Your task to perform on an android device: turn off location history Image 0: 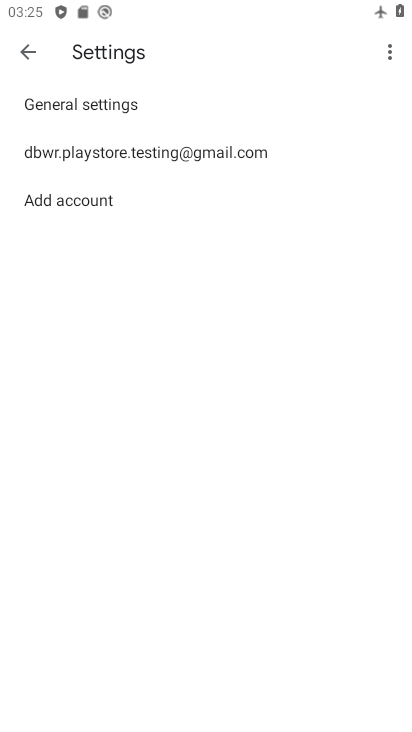
Step 0: click (183, 148)
Your task to perform on an android device: turn off location history Image 1: 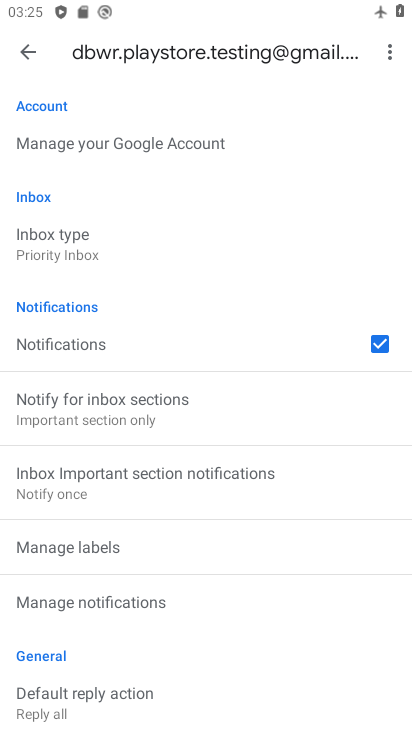
Step 1: press home button
Your task to perform on an android device: turn off location history Image 2: 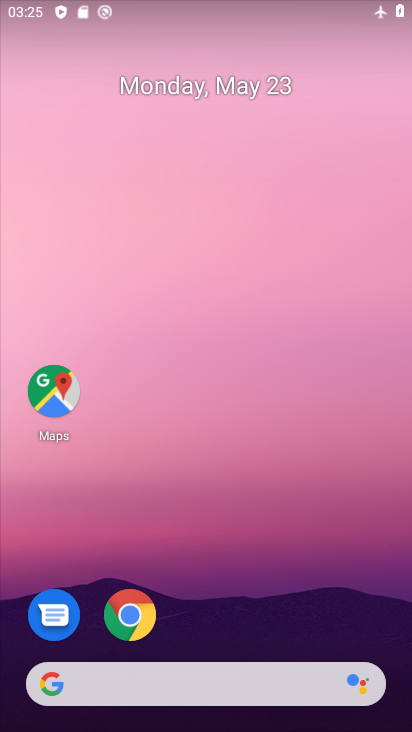
Step 2: drag from (247, 553) to (321, 220)
Your task to perform on an android device: turn off location history Image 3: 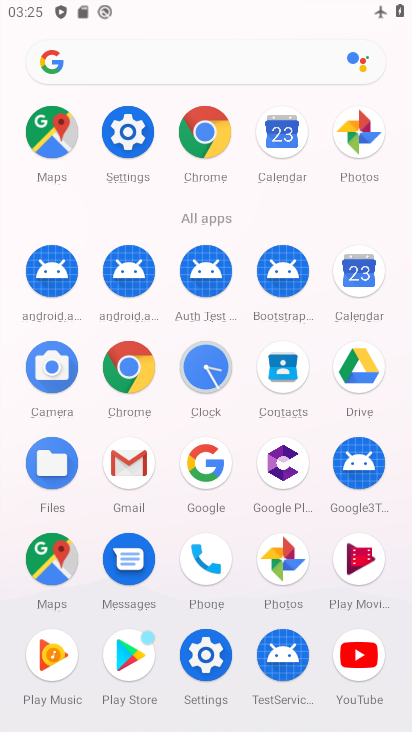
Step 3: click (215, 646)
Your task to perform on an android device: turn off location history Image 4: 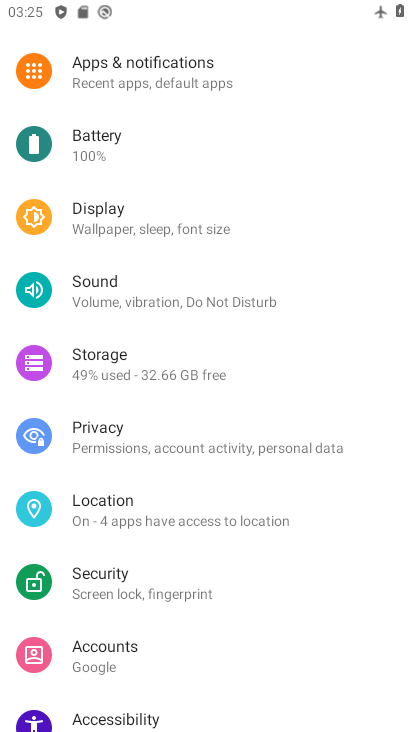
Step 4: click (209, 516)
Your task to perform on an android device: turn off location history Image 5: 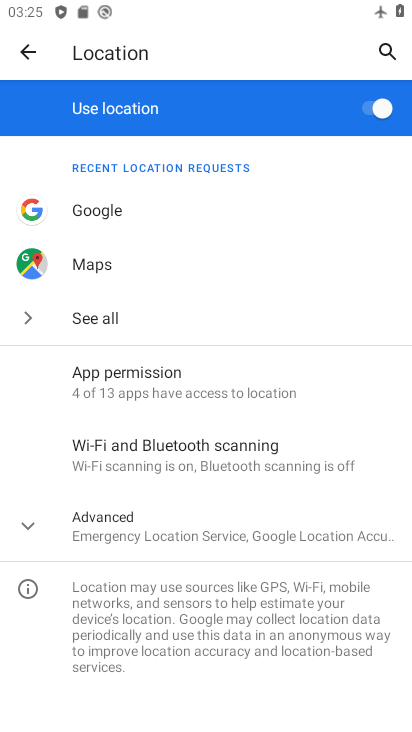
Step 5: click (225, 541)
Your task to perform on an android device: turn off location history Image 6: 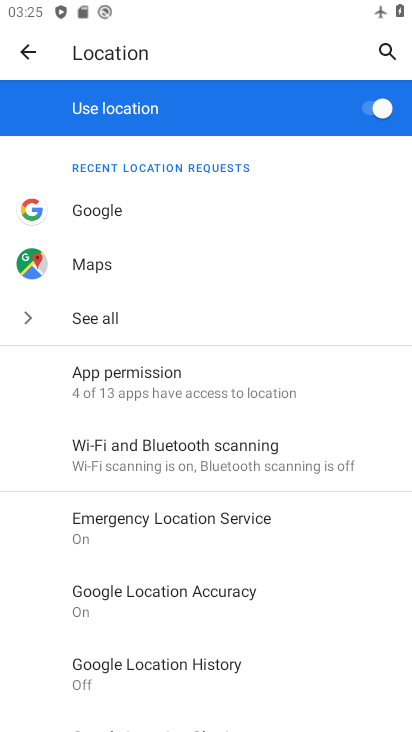
Step 6: drag from (289, 577) to (311, 425)
Your task to perform on an android device: turn off location history Image 7: 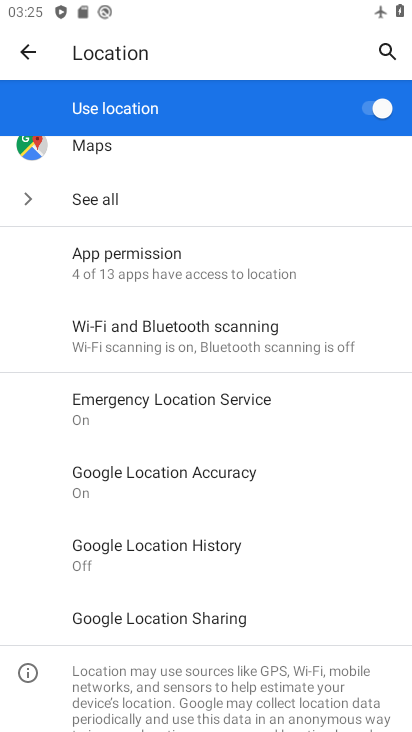
Step 7: click (228, 543)
Your task to perform on an android device: turn off location history Image 8: 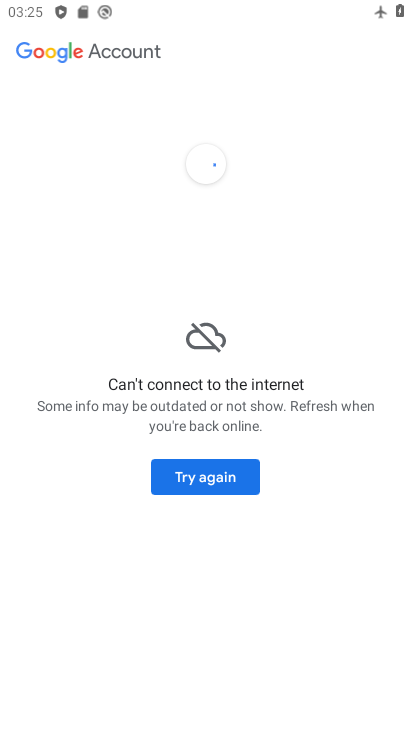
Step 8: task complete